Your task to perform on an android device: Go to location settings Image 0: 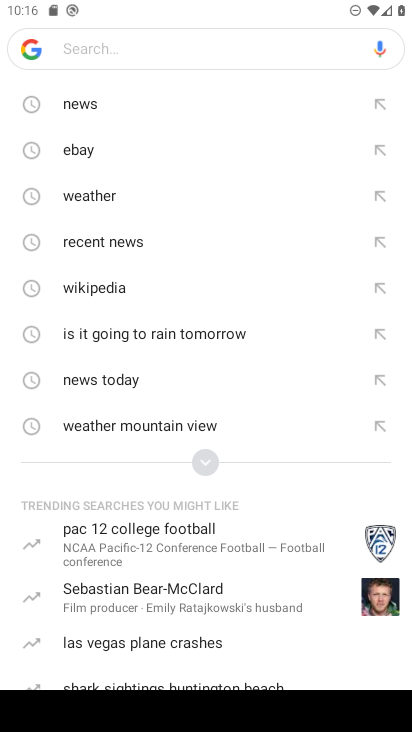
Step 0: press home button
Your task to perform on an android device: Go to location settings Image 1: 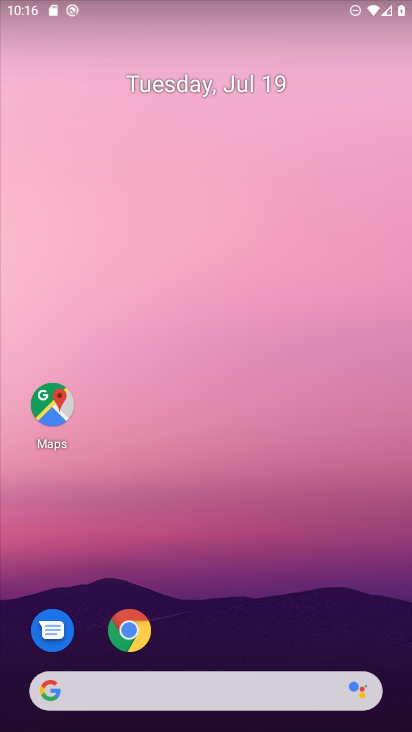
Step 1: drag from (23, 711) to (338, 93)
Your task to perform on an android device: Go to location settings Image 2: 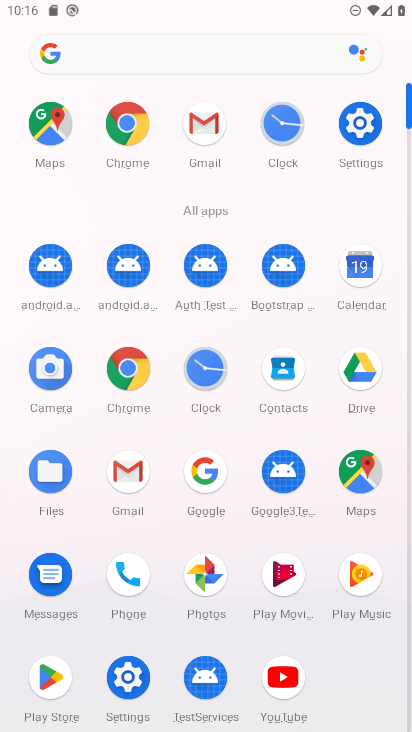
Step 2: click (126, 673)
Your task to perform on an android device: Go to location settings Image 3: 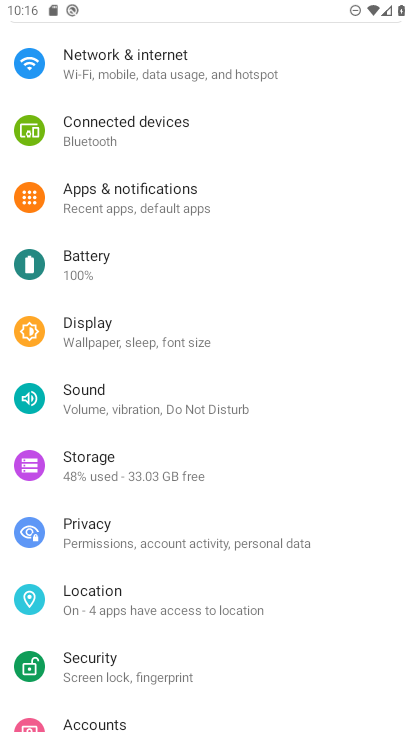
Step 3: click (99, 594)
Your task to perform on an android device: Go to location settings Image 4: 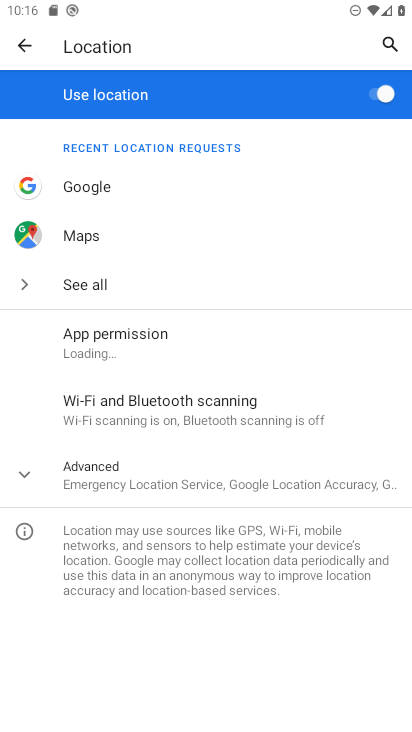
Step 4: task complete